Your task to perform on an android device: change your default location settings in chrome Image 0: 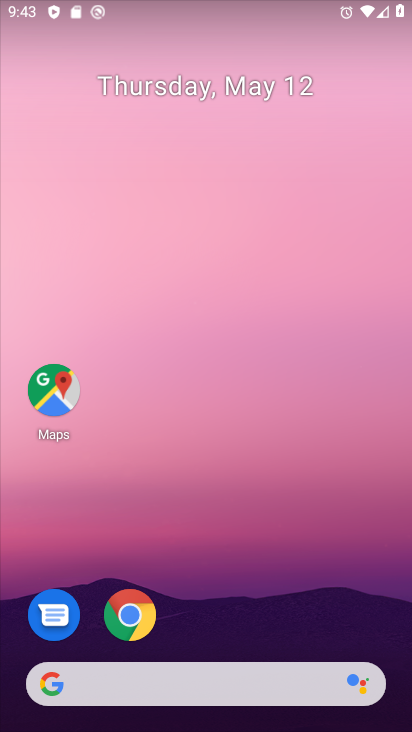
Step 0: click (118, 622)
Your task to perform on an android device: change your default location settings in chrome Image 1: 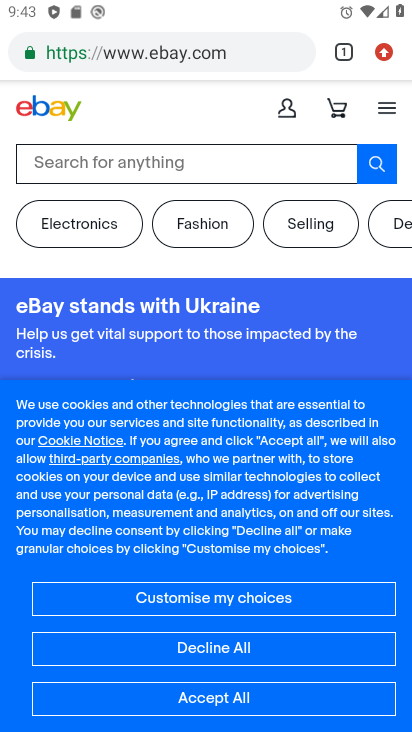
Step 1: click (394, 56)
Your task to perform on an android device: change your default location settings in chrome Image 2: 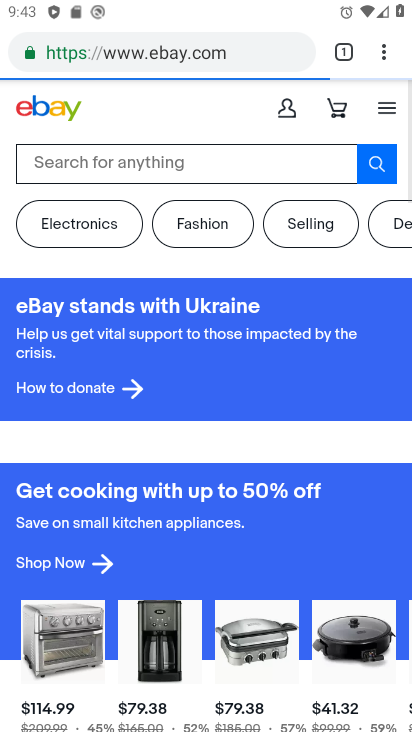
Step 2: drag from (388, 49) to (224, 661)
Your task to perform on an android device: change your default location settings in chrome Image 3: 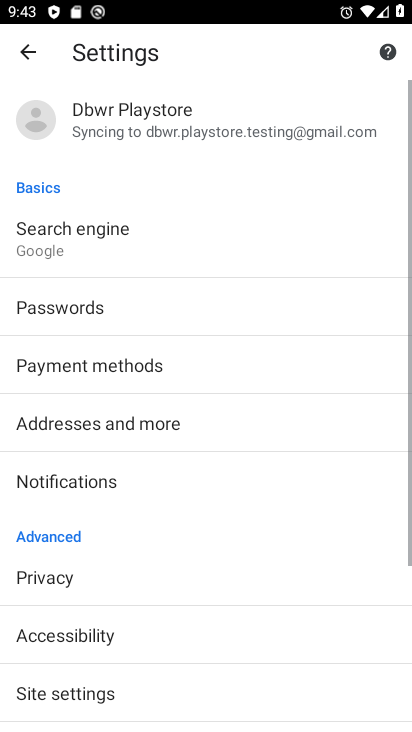
Step 3: drag from (141, 679) to (242, 378)
Your task to perform on an android device: change your default location settings in chrome Image 4: 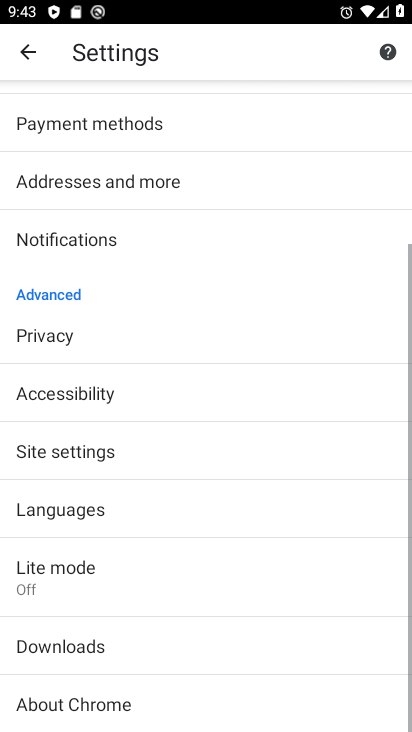
Step 4: click (97, 447)
Your task to perform on an android device: change your default location settings in chrome Image 5: 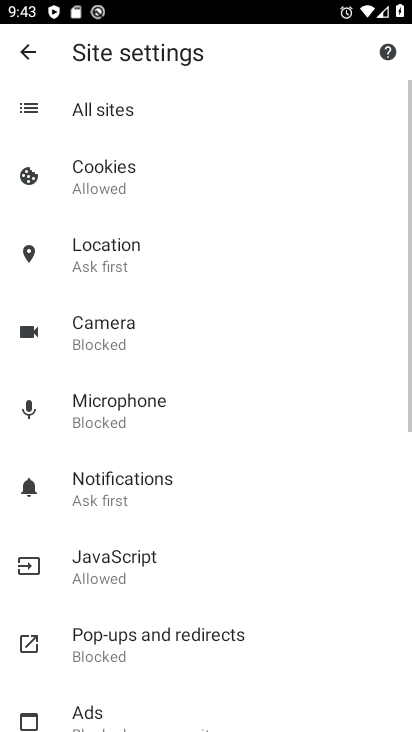
Step 5: click (131, 248)
Your task to perform on an android device: change your default location settings in chrome Image 6: 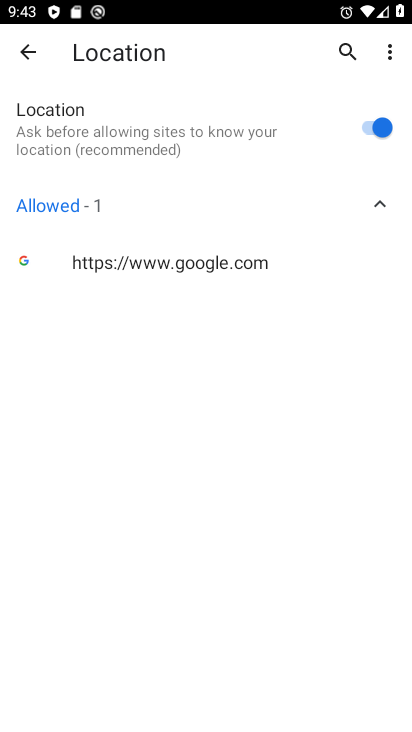
Step 6: click (344, 138)
Your task to perform on an android device: change your default location settings in chrome Image 7: 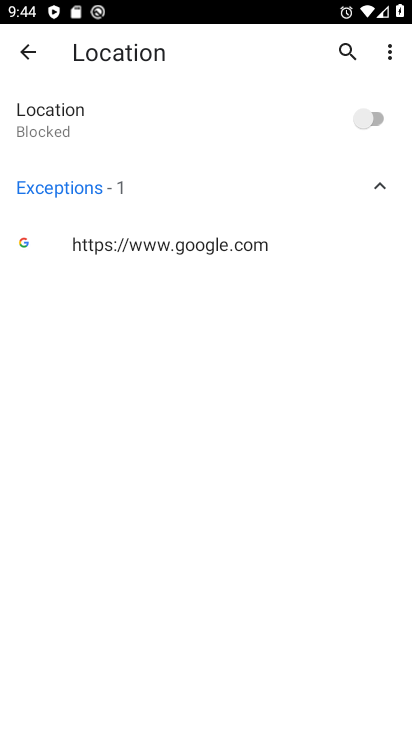
Step 7: task complete